Your task to perform on an android device: open app "Microsoft Excel" Image 0: 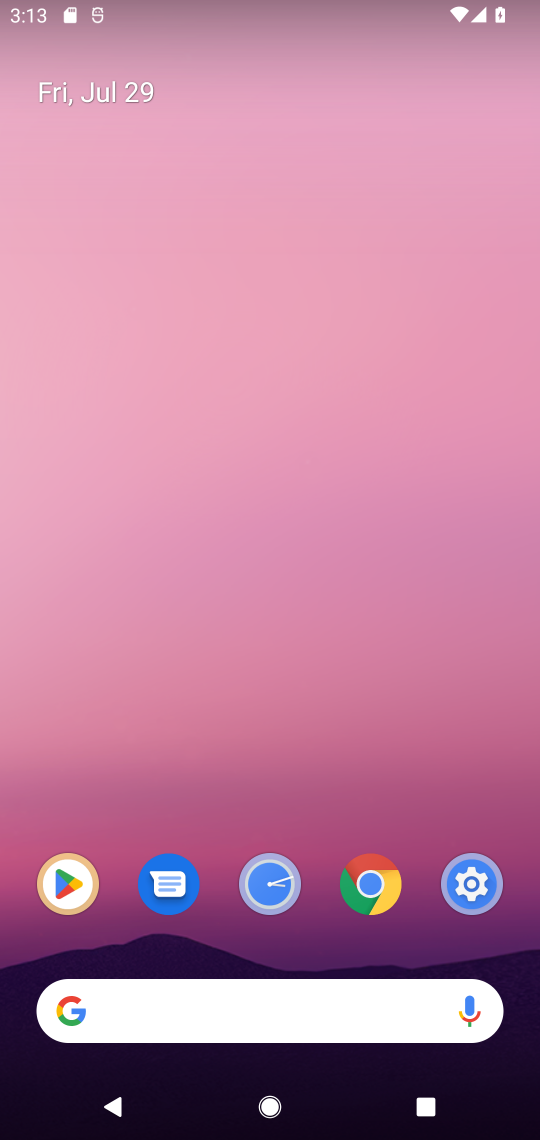
Step 0: drag from (418, 797) to (353, 35)
Your task to perform on an android device: open app "Microsoft Excel" Image 1: 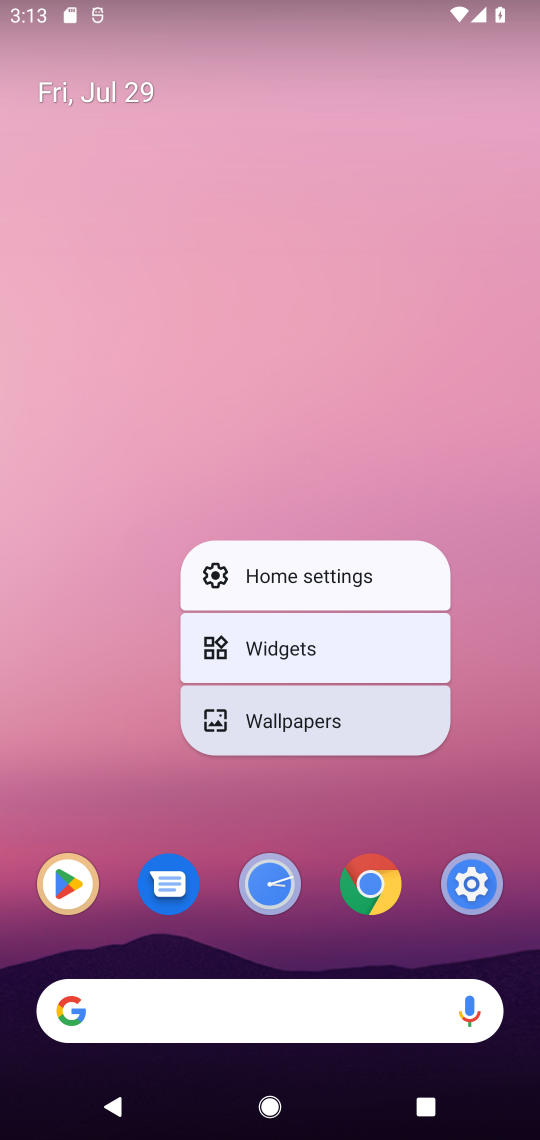
Step 1: click (314, 212)
Your task to perform on an android device: open app "Microsoft Excel" Image 2: 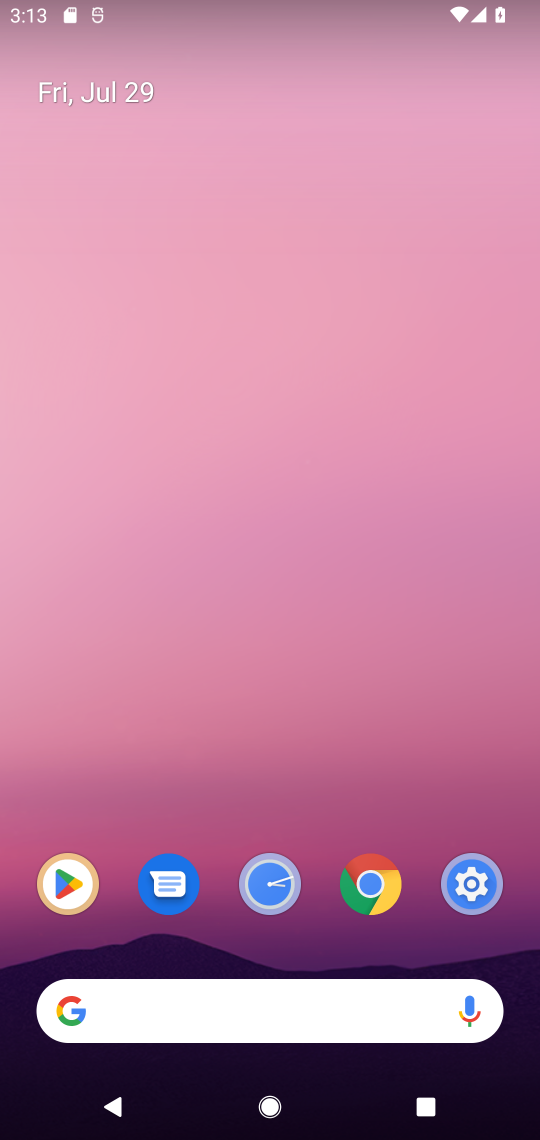
Step 2: drag from (225, 838) to (336, 16)
Your task to perform on an android device: open app "Microsoft Excel" Image 3: 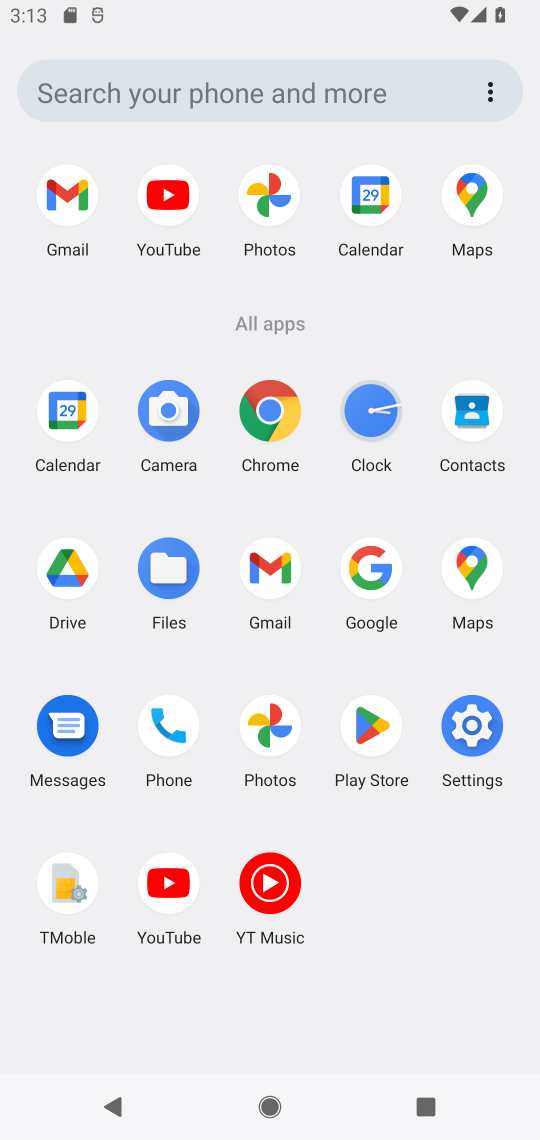
Step 3: click (386, 680)
Your task to perform on an android device: open app "Microsoft Excel" Image 4: 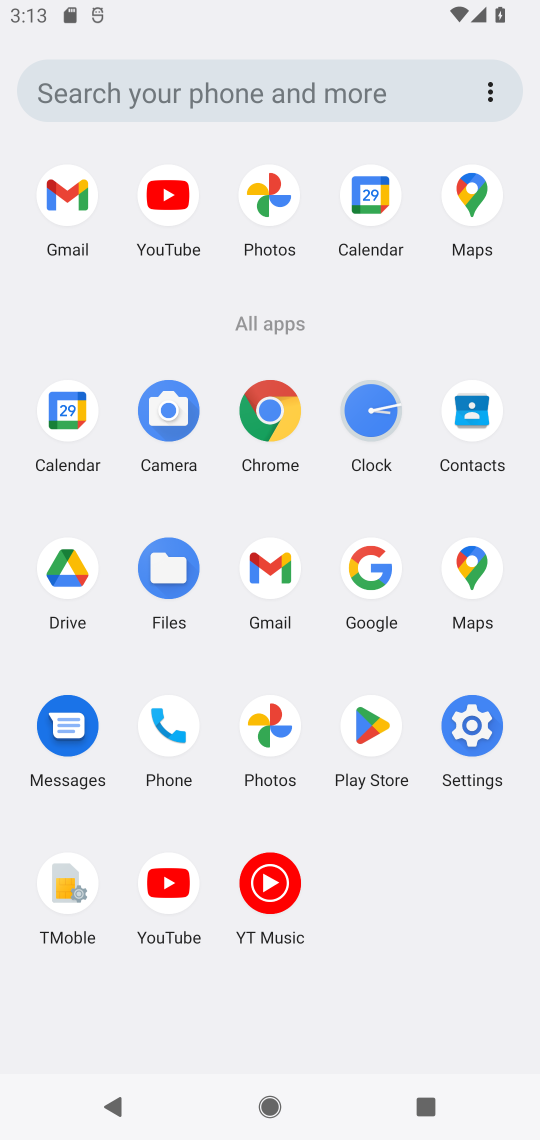
Step 4: click (367, 757)
Your task to perform on an android device: open app "Microsoft Excel" Image 5: 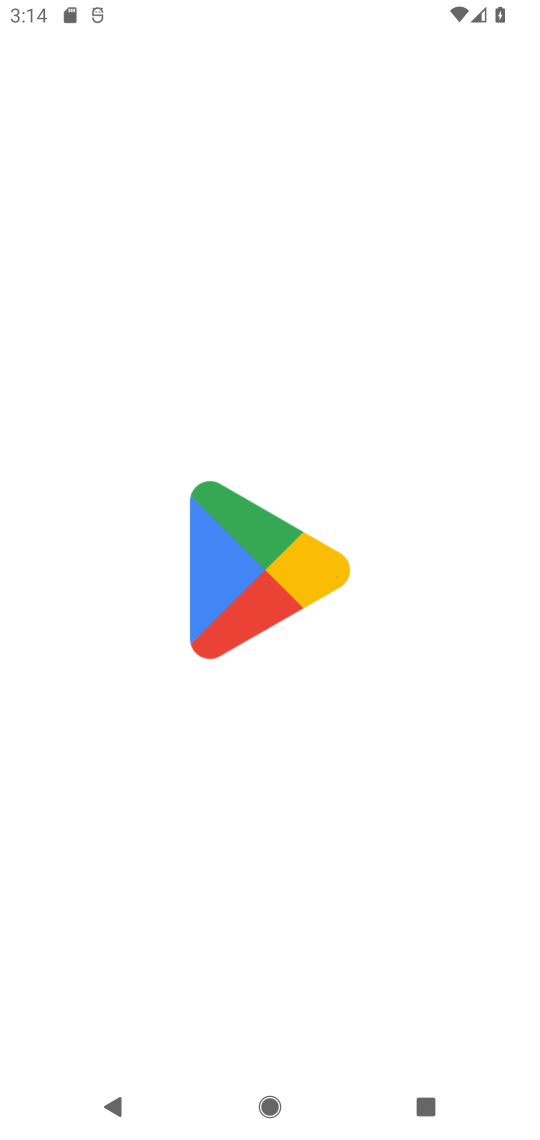
Step 5: press home button
Your task to perform on an android device: open app "Microsoft Excel" Image 6: 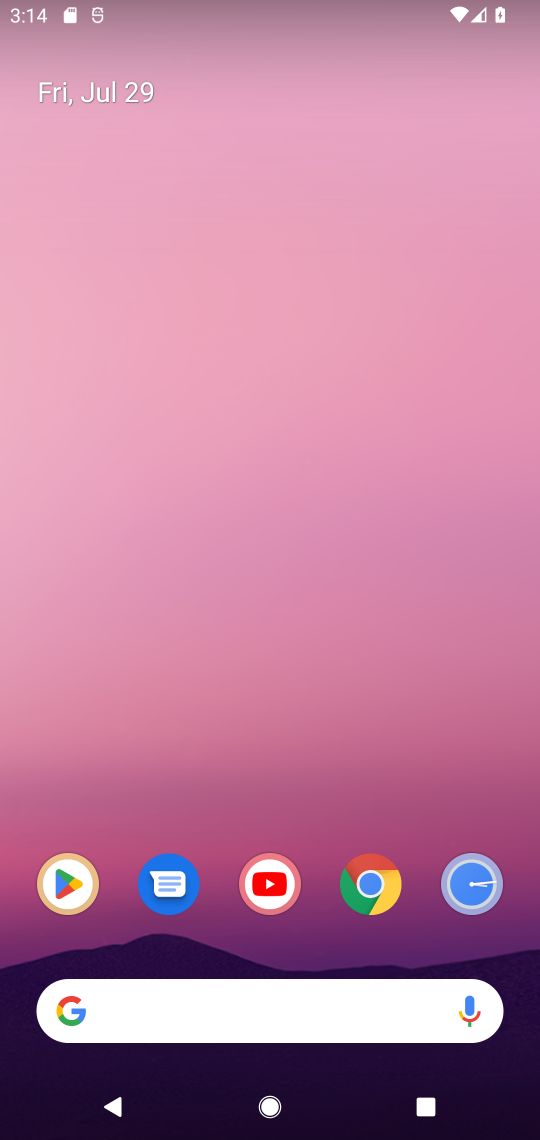
Step 6: drag from (324, 942) to (301, 103)
Your task to perform on an android device: open app "Microsoft Excel" Image 7: 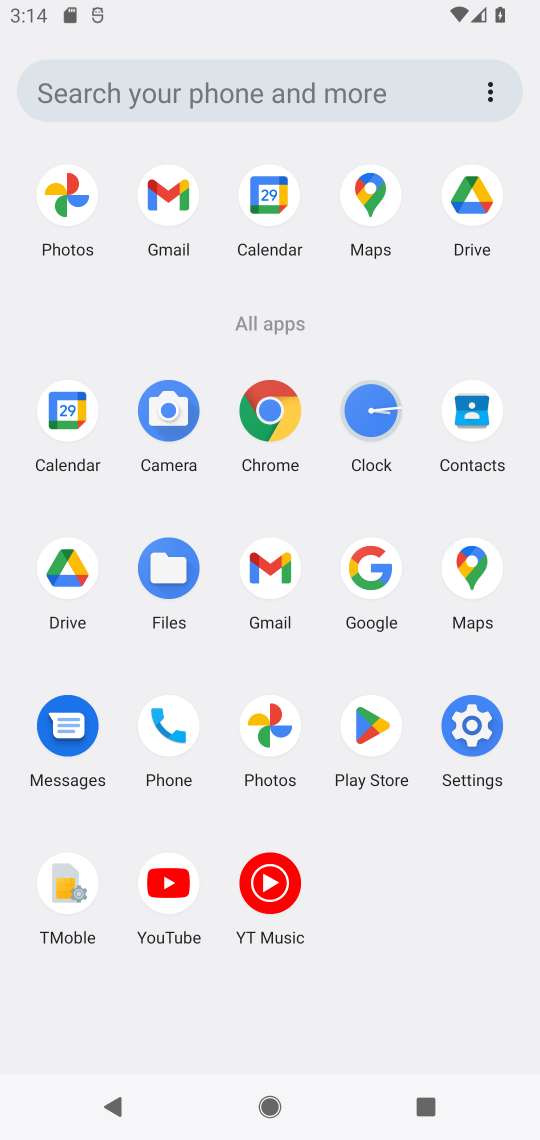
Step 7: click (370, 733)
Your task to perform on an android device: open app "Microsoft Excel" Image 8: 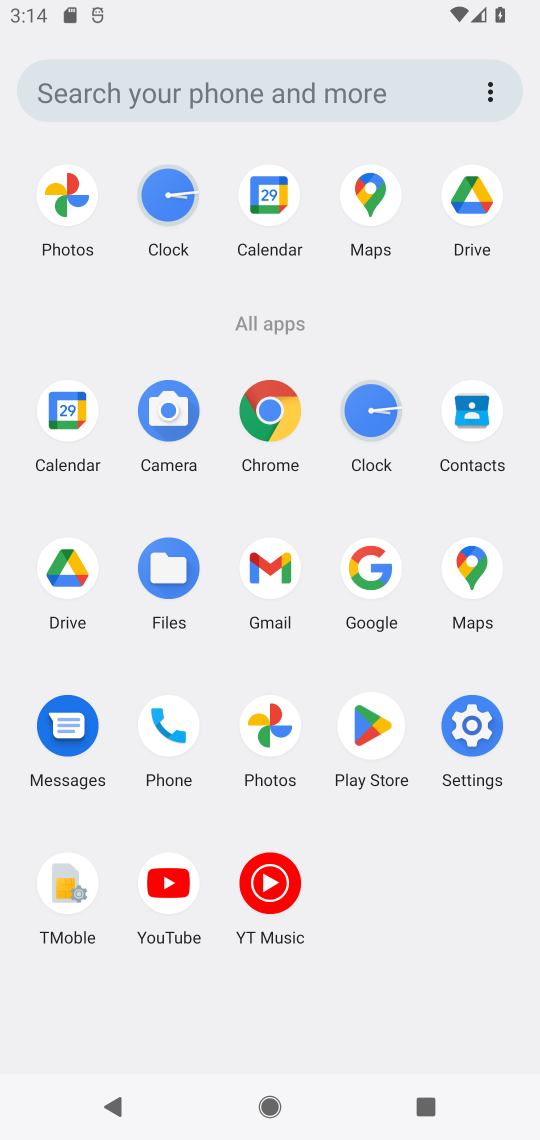
Step 8: click (370, 733)
Your task to perform on an android device: open app "Microsoft Excel" Image 9: 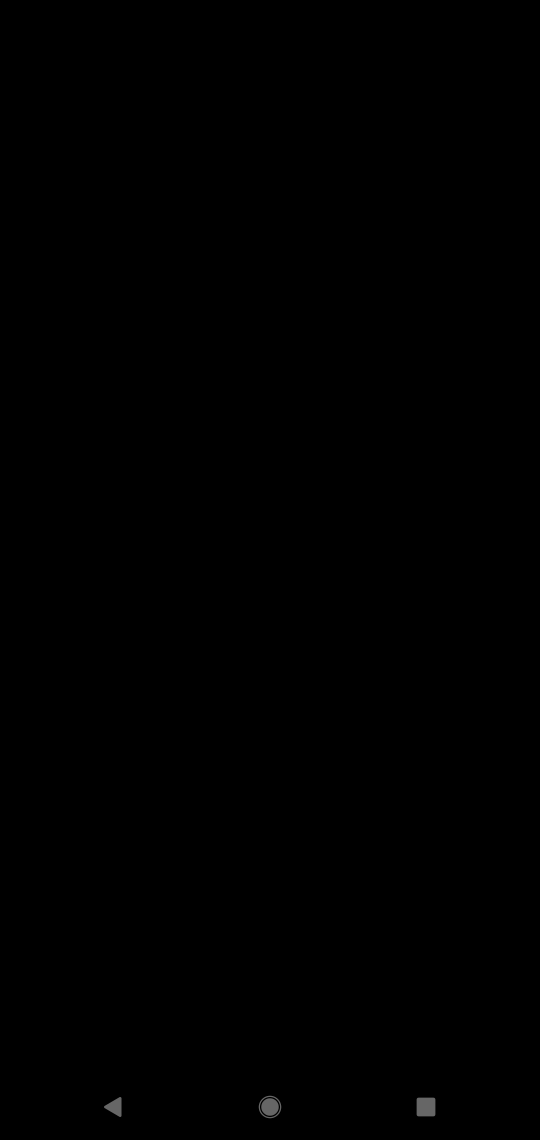
Step 9: press home button
Your task to perform on an android device: open app "Microsoft Excel" Image 10: 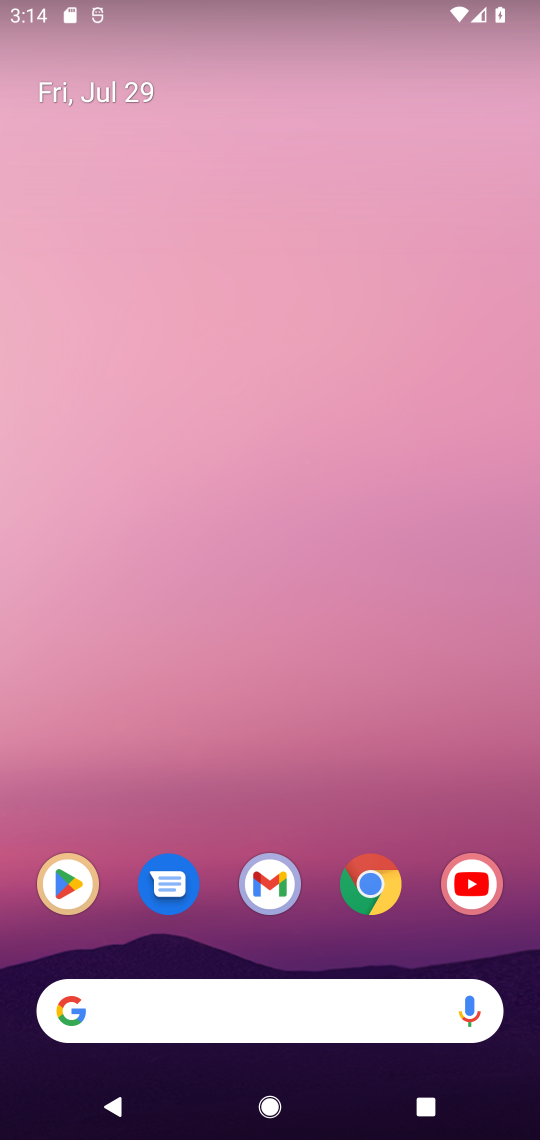
Step 10: click (290, 1001)
Your task to perform on an android device: open app "Microsoft Excel" Image 11: 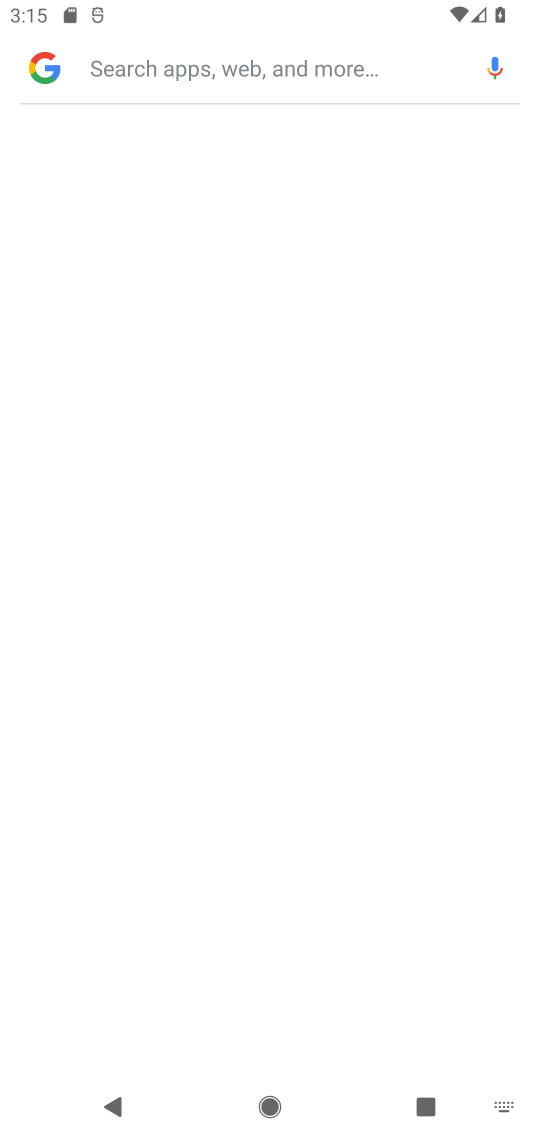
Step 11: type "microsoft excel"
Your task to perform on an android device: open app "Microsoft Excel" Image 12: 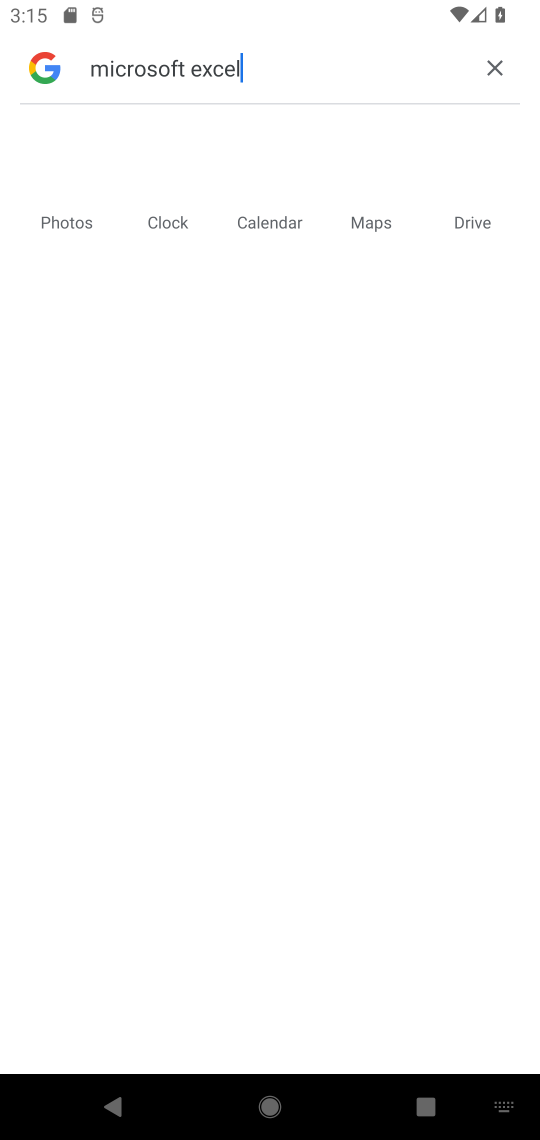
Step 12: click (381, 66)
Your task to perform on an android device: open app "Microsoft Excel" Image 13: 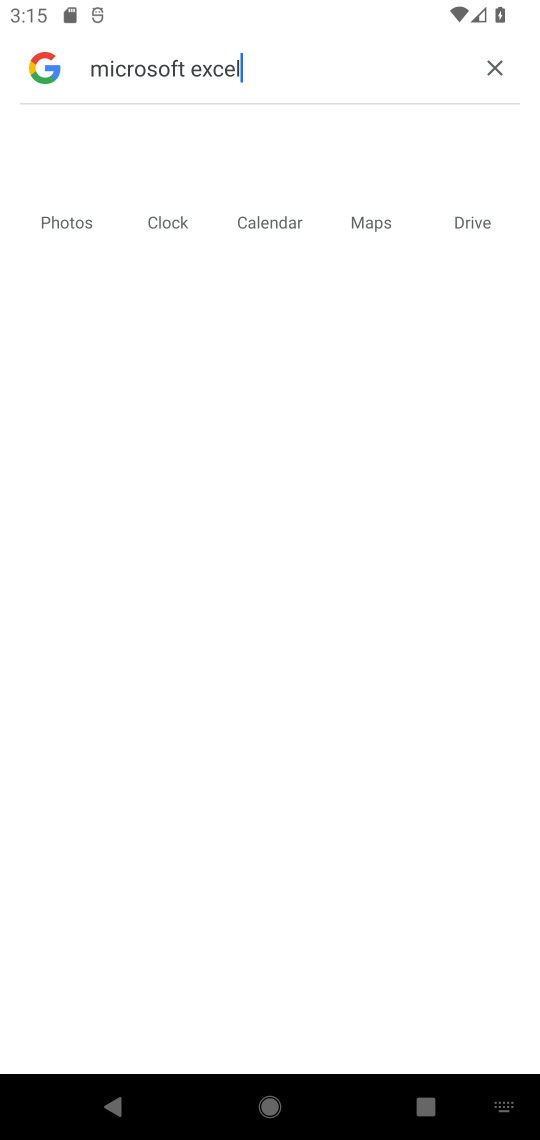
Step 13: click (334, 89)
Your task to perform on an android device: open app "Microsoft Excel" Image 14: 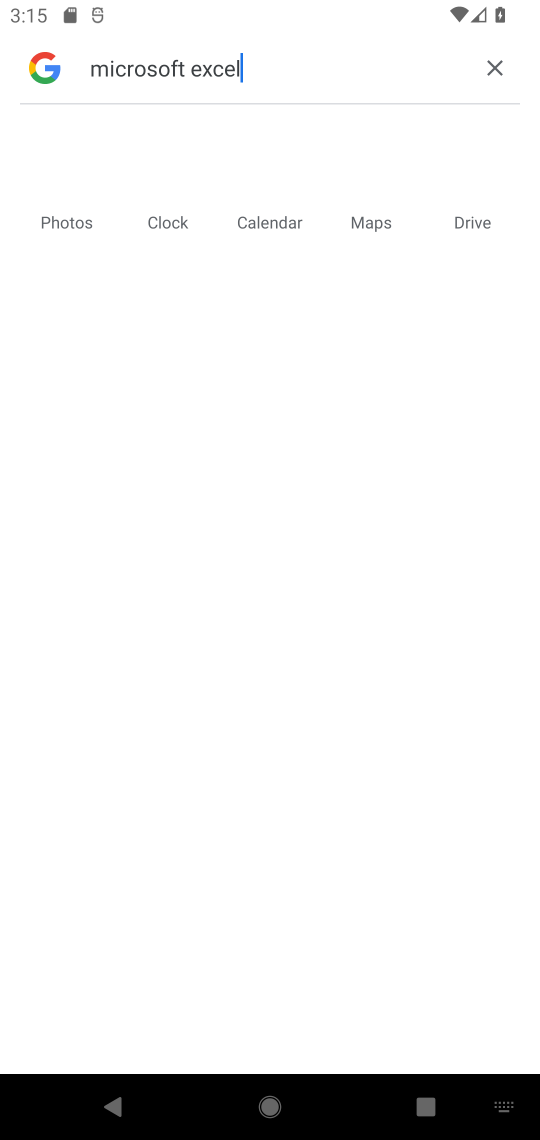
Step 14: task complete